Your task to perform on an android device: Search for Italian restaurants on Maps Image 0: 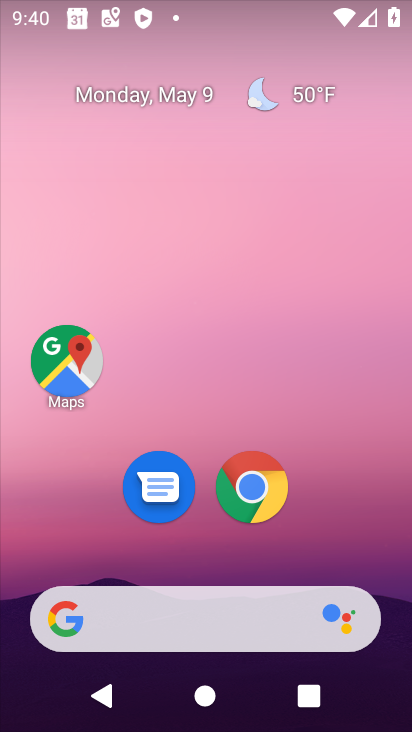
Step 0: press home button
Your task to perform on an android device: Search for Italian restaurants on Maps Image 1: 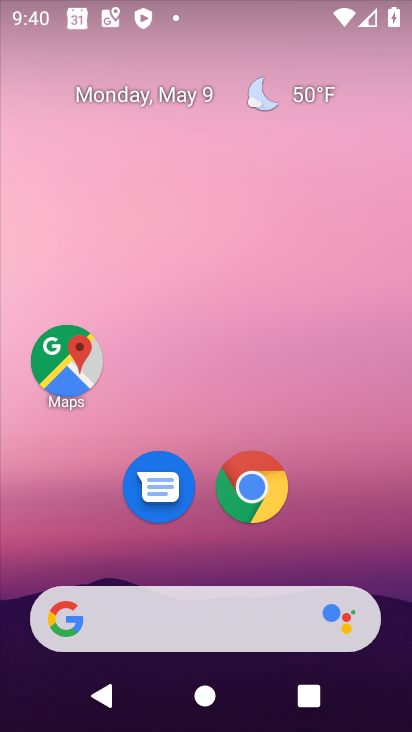
Step 1: click (50, 371)
Your task to perform on an android device: Search for Italian restaurants on Maps Image 2: 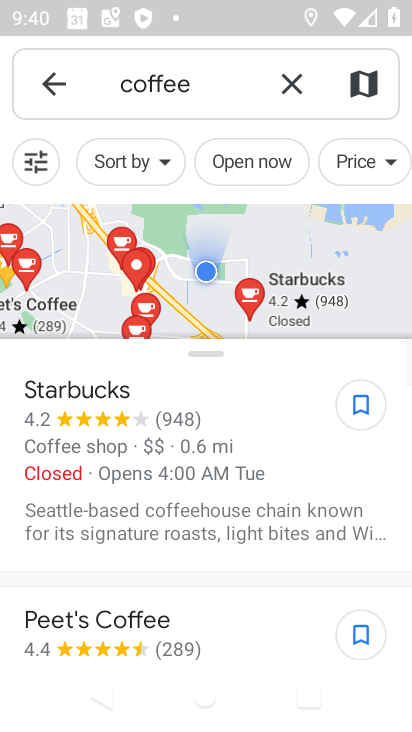
Step 2: click (288, 87)
Your task to perform on an android device: Search for Italian restaurants on Maps Image 3: 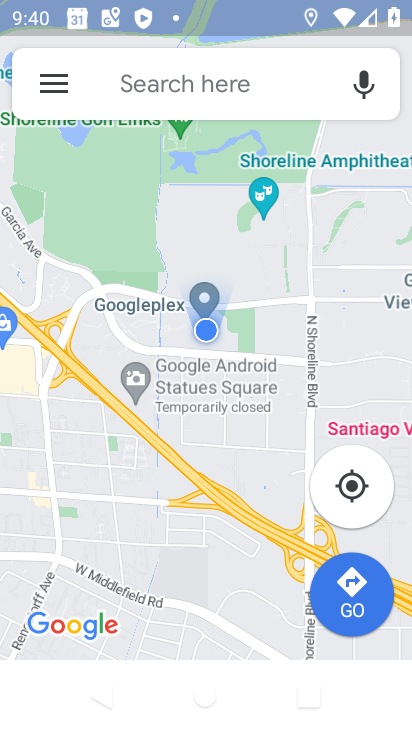
Step 3: click (206, 85)
Your task to perform on an android device: Search for Italian restaurants on Maps Image 4: 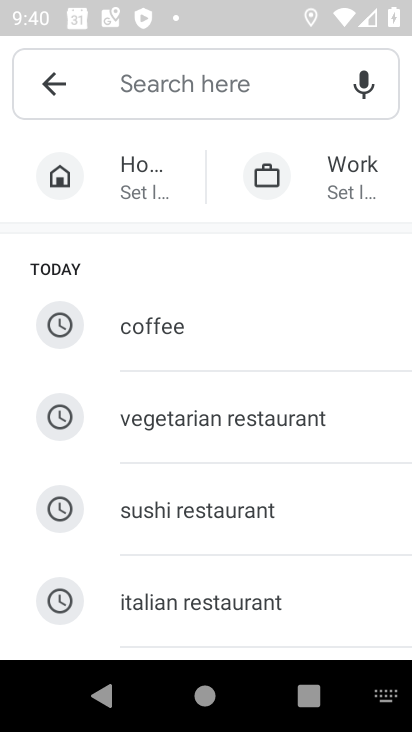
Step 4: click (176, 609)
Your task to perform on an android device: Search for Italian restaurants on Maps Image 5: 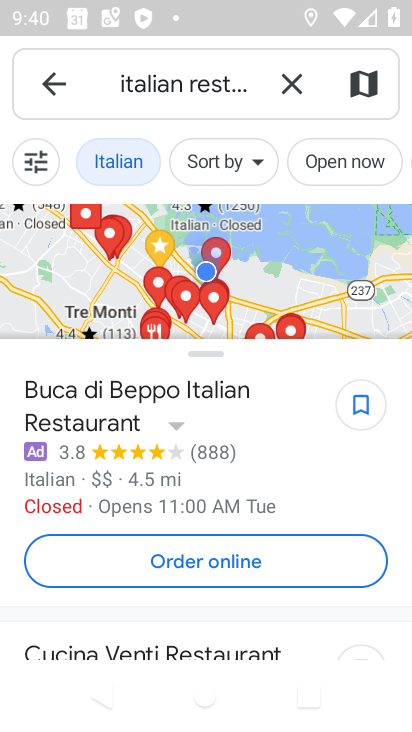
Step 5: task complete